Your task to perform on an android device: move an email to a new category in the gmail app Image 0: 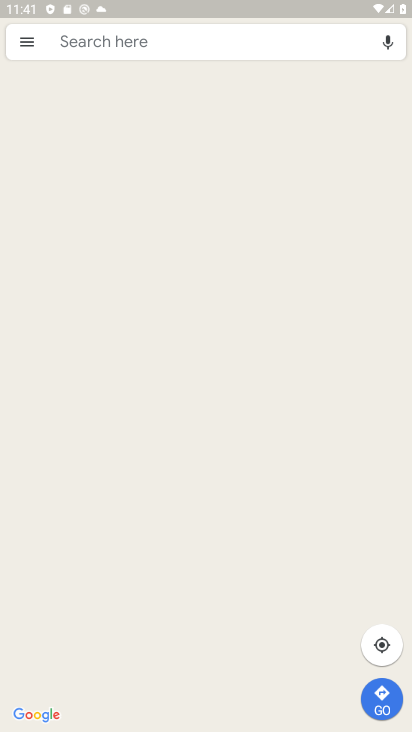
Step 0: drag from (385, 646) to (355, 184)
Your task to perform on an android device: move an email to a new category in the gmail app Image 1: 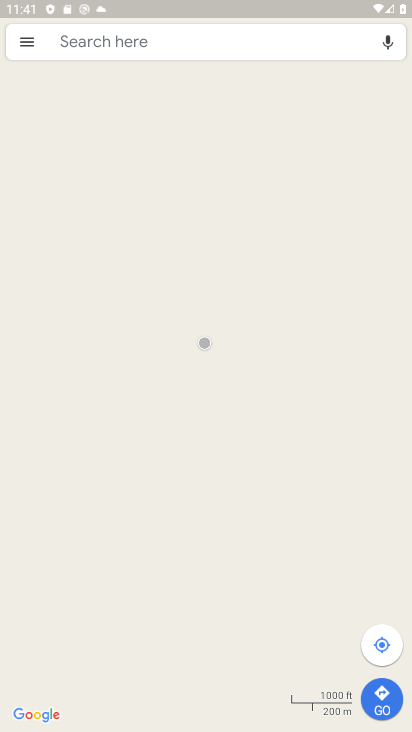
Step 1: press home button
Your task to perform on an android device: move an email to a new category in the gmail app Image 2: 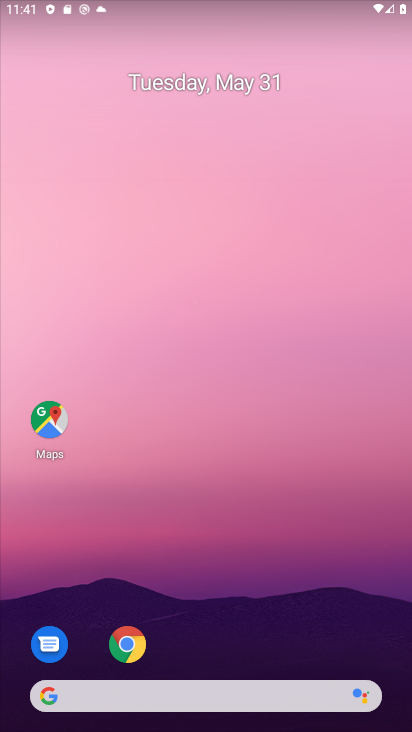
Step 2: drag from (319, 609) to (276, 116)
Your task to perform on an android device: move an email to a new category in the gmail app Image 3: 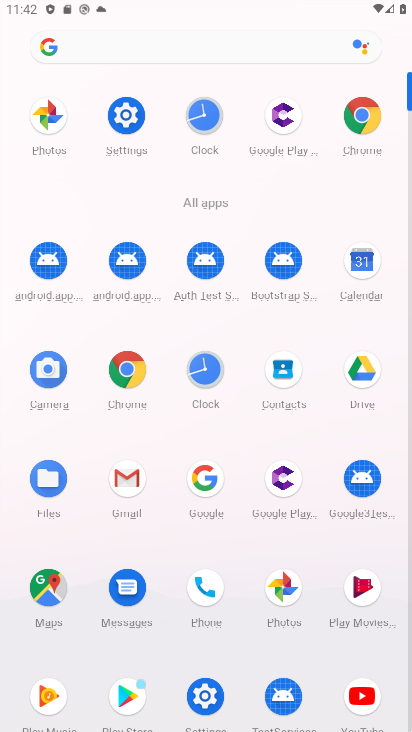
Step 3: click (129, 476)
Your task to perform on an android device: move an email to a new category in the gmail app Image 4: 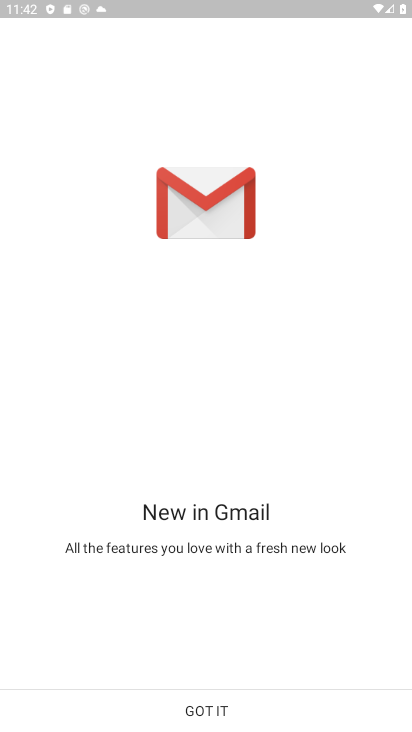
Step 4: click (219, 714)
Your task to perform on an android device: move an email to a new category in the gmail app Image 5: 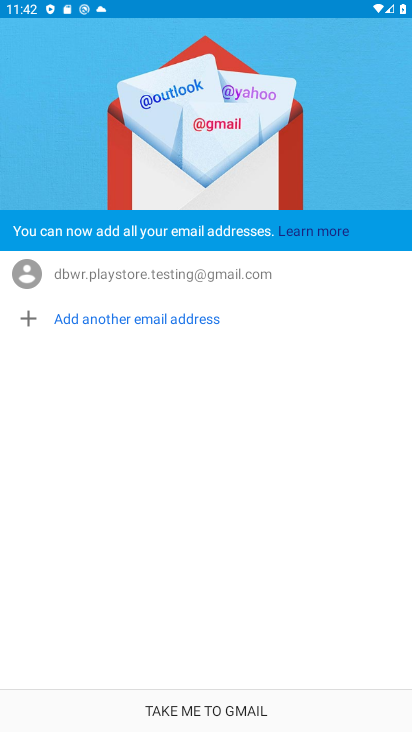
Step 5: click (234, 706)
Your task to perform on an android device: move an email to a new category in the gmail app Image 6: 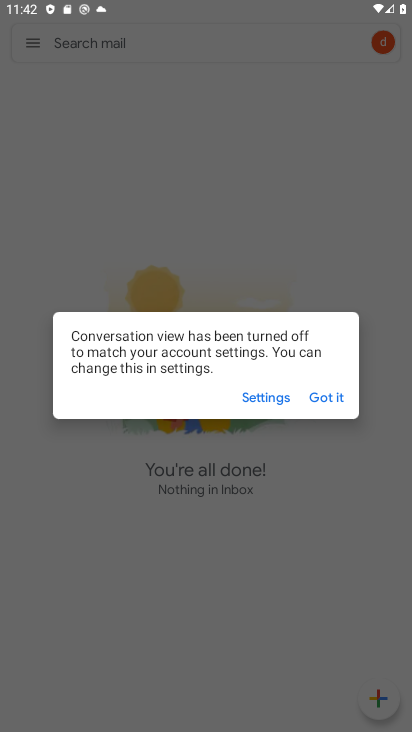
Step 6: press home button
Your task to perform on an android device: move an email to a new category in the gmail app Image 7: 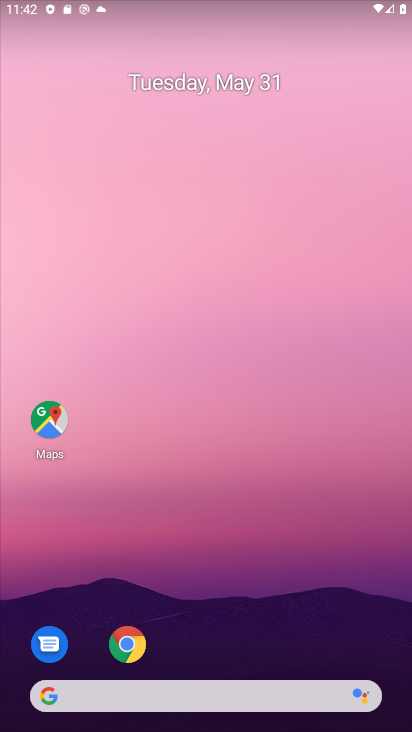
Step 7: drag from (381, 629) to (329, 83)
Your task to perform on an android device: move an email to a new category in the gmail app Image 8: 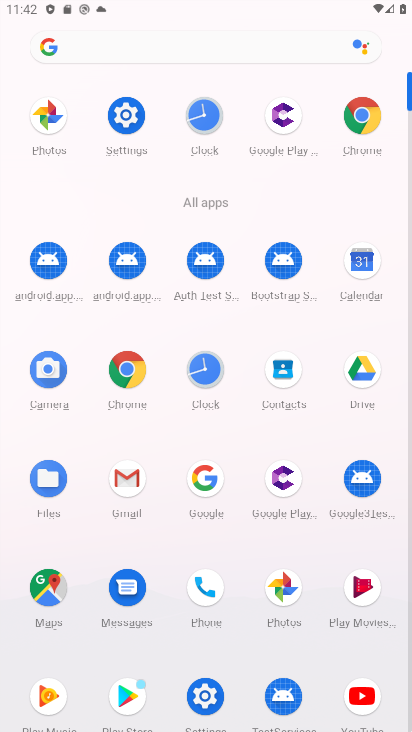
Step 8: click (141, 494)
Your task to perform on an android device: move an email to a new category in the gmail app Image 9: 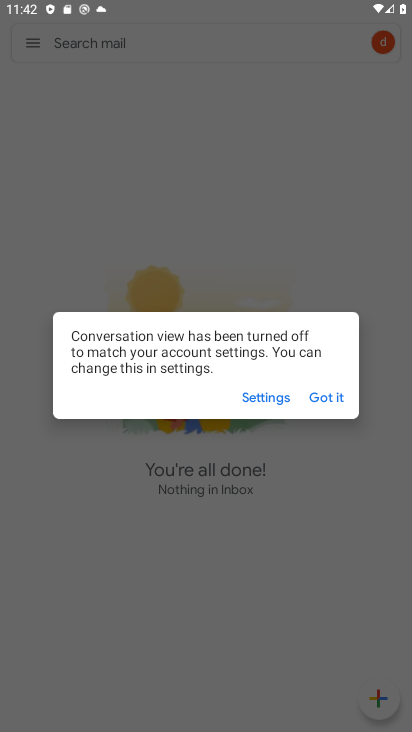
Step 9: click (324, 406)
Your task to perform on an android device: move an email to a new category in the gmail app Image 10: 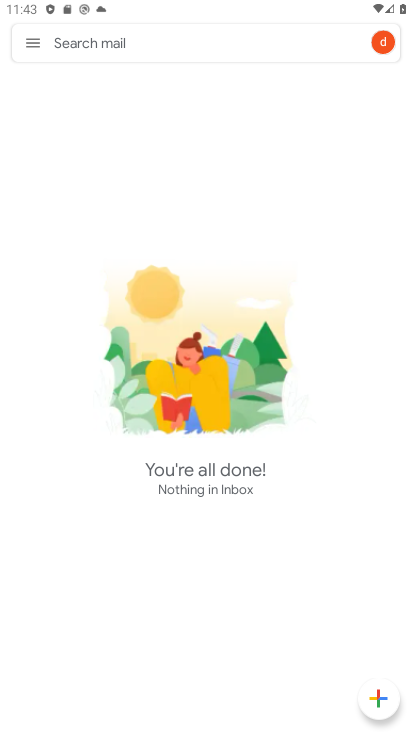
Step 10: click (34, 47)
Your task to perform on an android device: move an email to a new category in the gmail app Image 11: 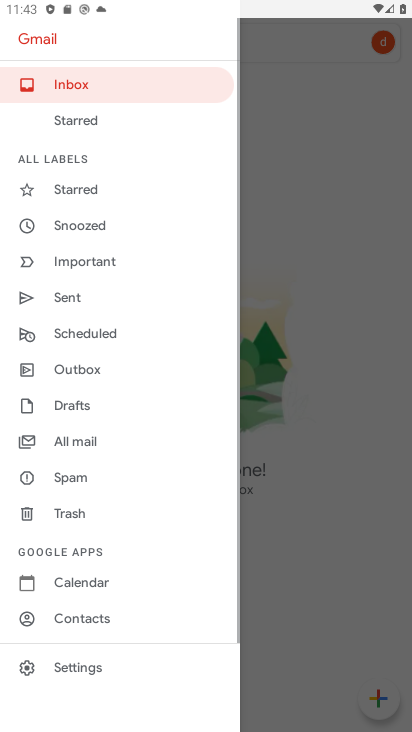
Step 11: drag from (99, 666) to (118, 339)
Your task to perform on an android device: move an email to a new category in the gmail app Image 12: 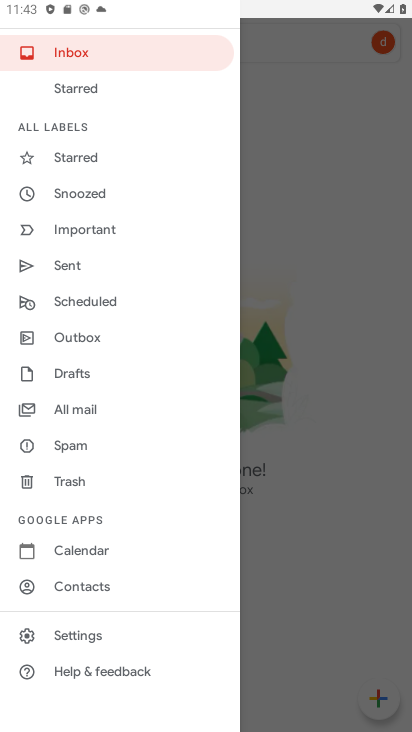
Step 12: click (93, 634)
Your task to perform on an android device: move an email to a new category in the gmail app Image 13: 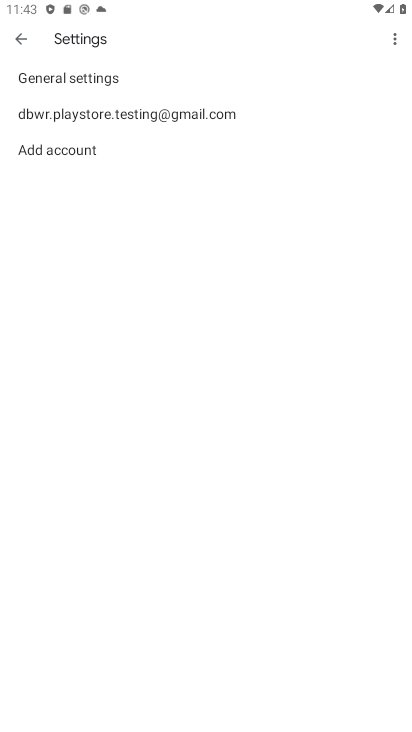
Step 13: click (233, 112)
Your task to perform on an android device: move an email to a new category in the gmail app Image 14: 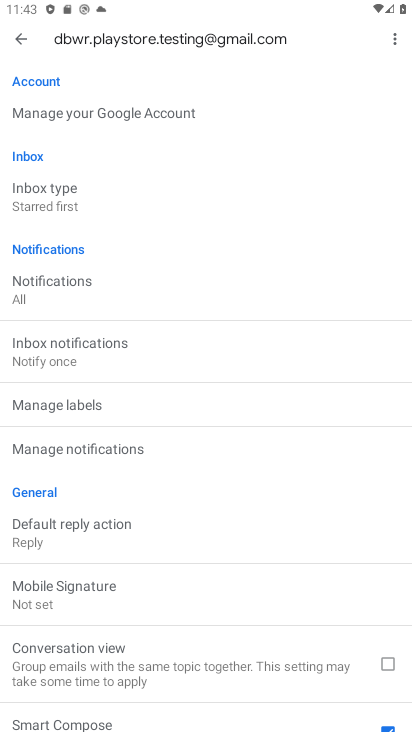
Step 14: drag from (184, 566) to (235, 323)
Your task to perform on an android device: move an email to a new category in the gmail app Image 15: 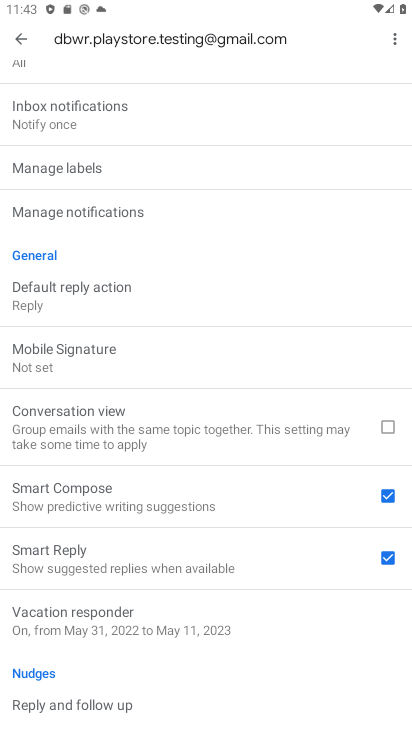
Step 15: drag from (212, 278) to (246, 666)
Your task to perform on an android device: move an email to a new category in the gmail app Image 16: 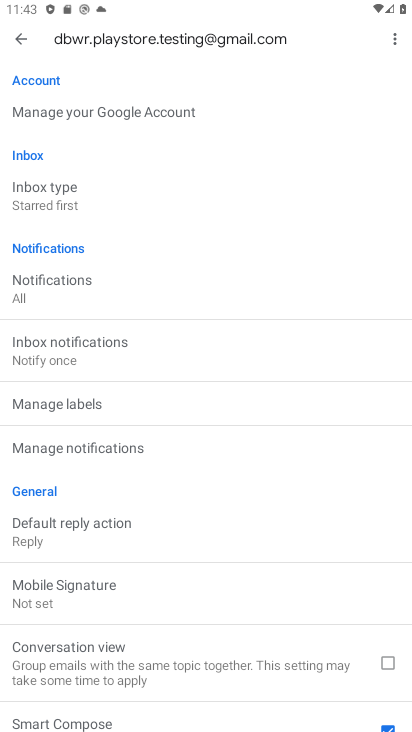
Step 16: click (30, 36)
Your task to perform on an android device: move an email to a new category in the gmail app Image 17: 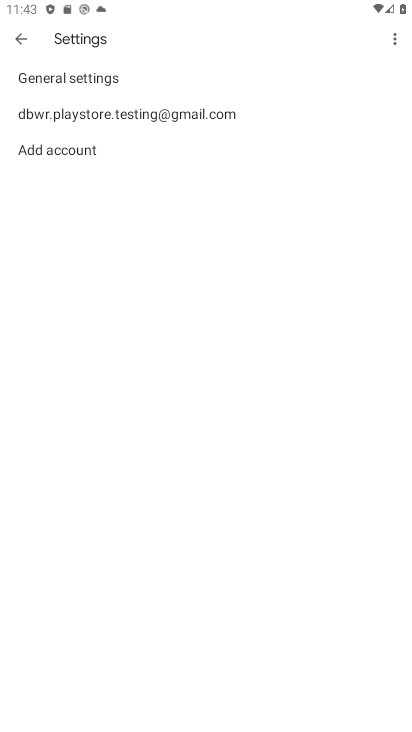
Step 17: click (30, 36)
Your task to perform on an android device: move an email to a new category in the gmail app Image 18: 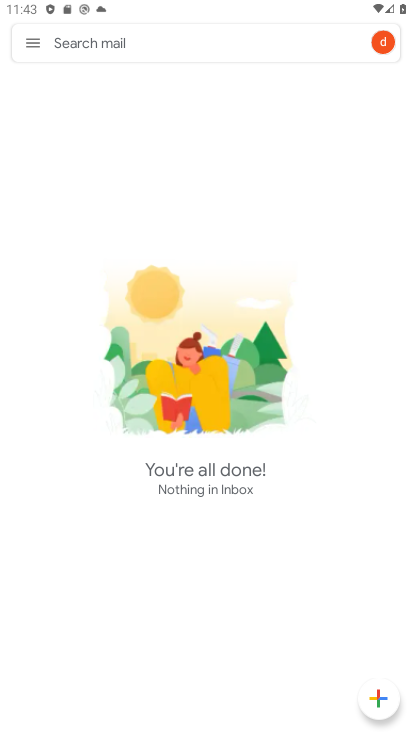
Step 18: click (27, 34)
Your task to perform on an android device: move an email to a new category in the gmail app Image 19: 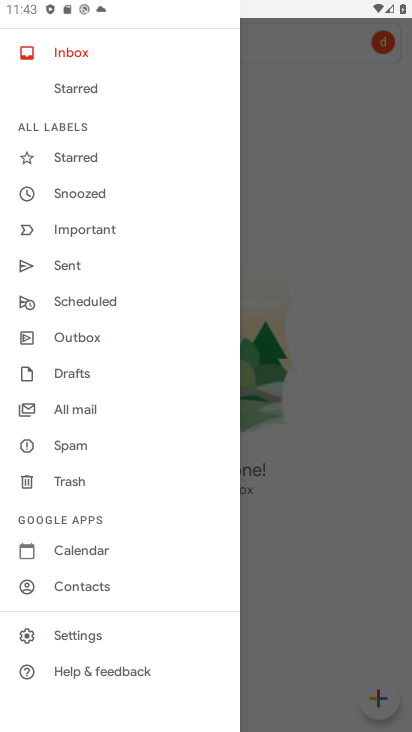
Step 19: drag from (110, 646) to (158, 433)
Your task to perform on an android device: move an email to a new category in the gmail app Image 20: 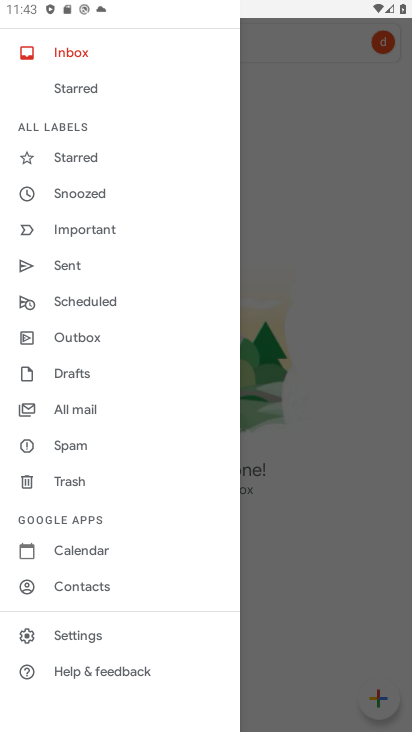
Step 20: click (91, 409)
Your task to perform on an android device: move an email to a new category in the gmail app Image 21: 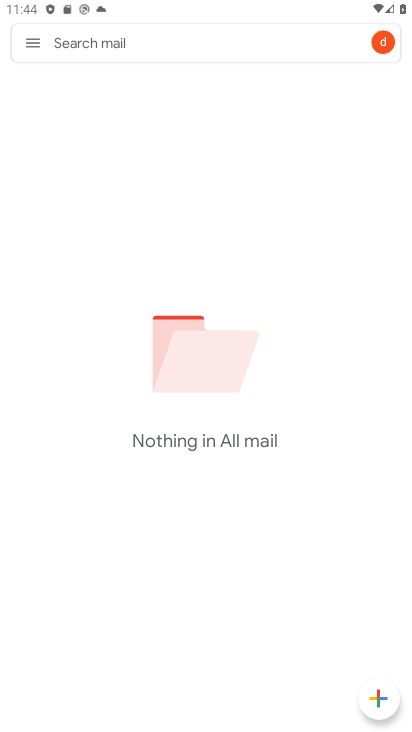
Step 21: task complete